Your task to perform on an android device: Open network settings Image 0: 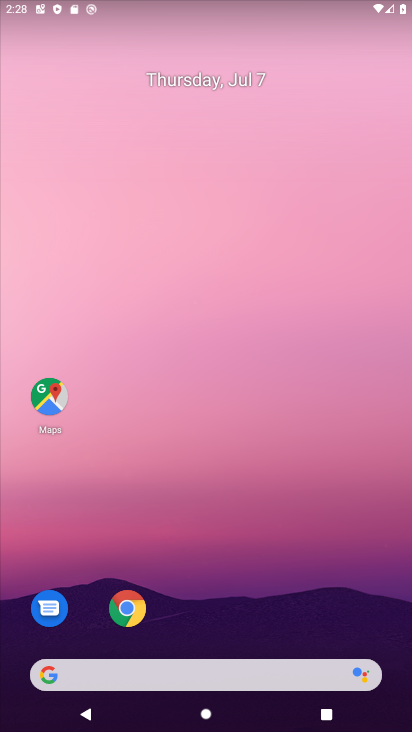
Step 0: drag from (395, 670) to (350, 123)
Your task to perform on an android device: Open network settings Image 1: 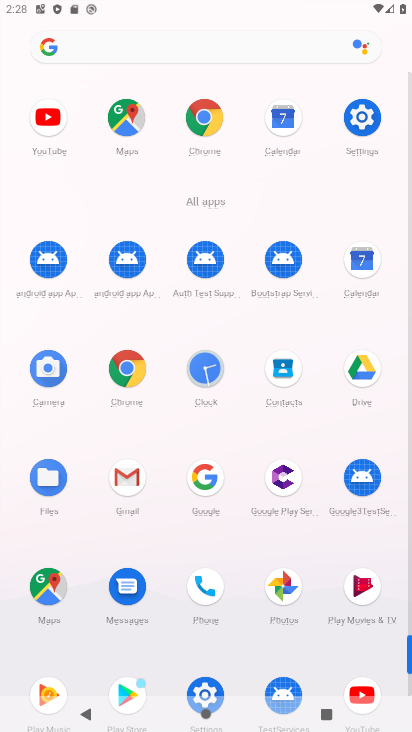
Step 1: click (206, 685)
Your task to perform on an android device: Open network settings Image 2: 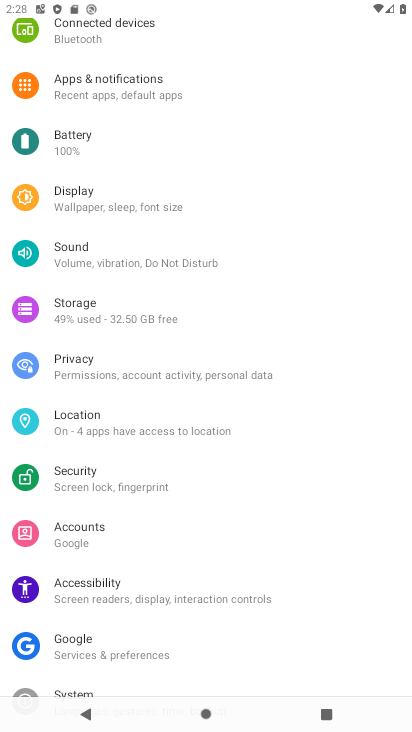
Step 2: drag from (314, 131) to (343, 538)
Your task to perform on an android device: Open network settings Image 3: 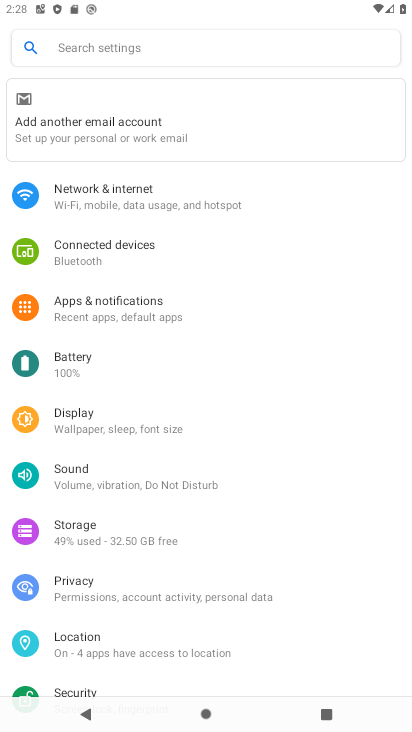
Step 3: click (99, 194)
Your task to perform on an android device: Open network settings Image 4: 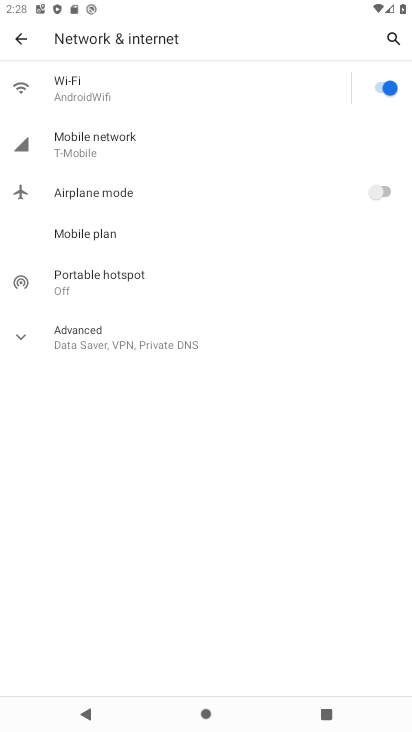
Step 4: click (88, 142)
Your task to perform on an android device: Open network settings Image 5: 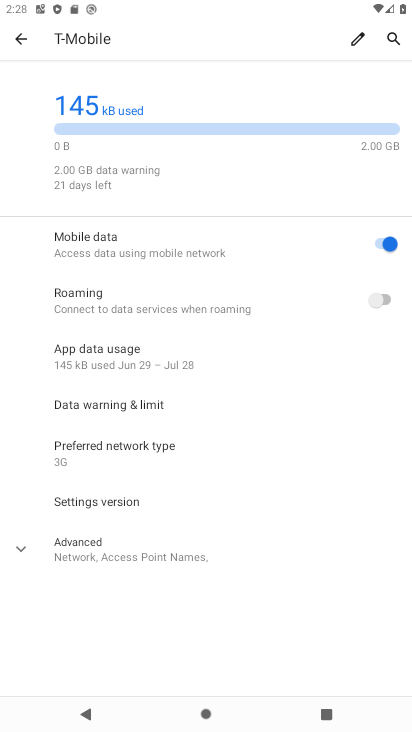
Step 5: click (22, 543)
Your task to perform on an android device: Open network settings Image 6: 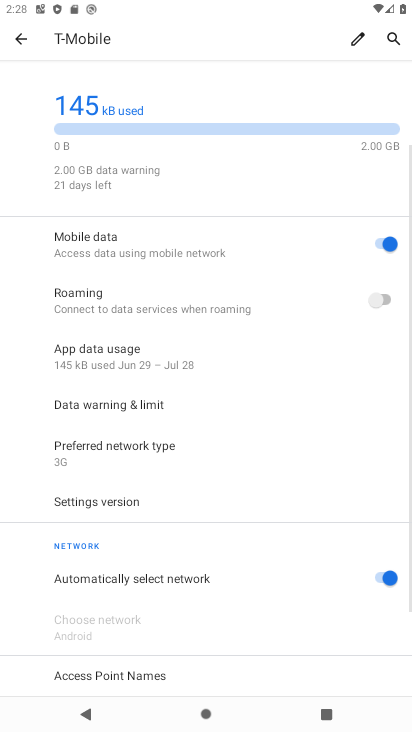
Step 6: task complete